Your task to perform on an android device: show emergency info Image 0: 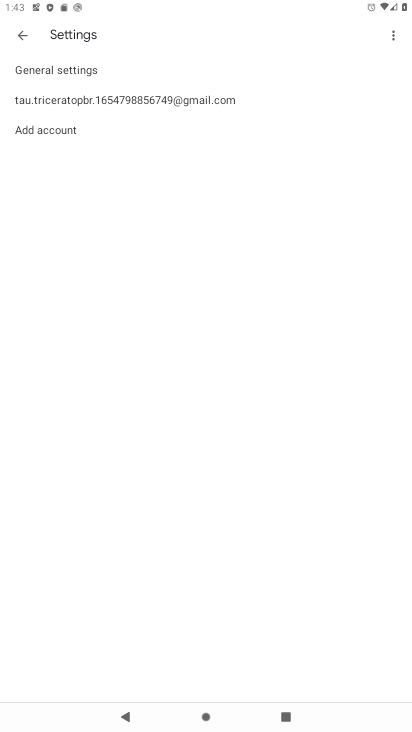
Step 0: press home button
Your task to perform on an android device: show emergency info Image 1: 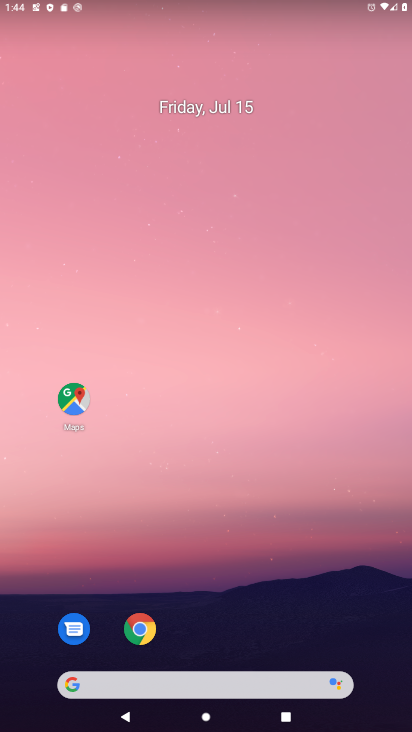
Step 1: drag from (280, 614) to (238, 97)
Your task to perform on an android device: show emergency info Image 2: 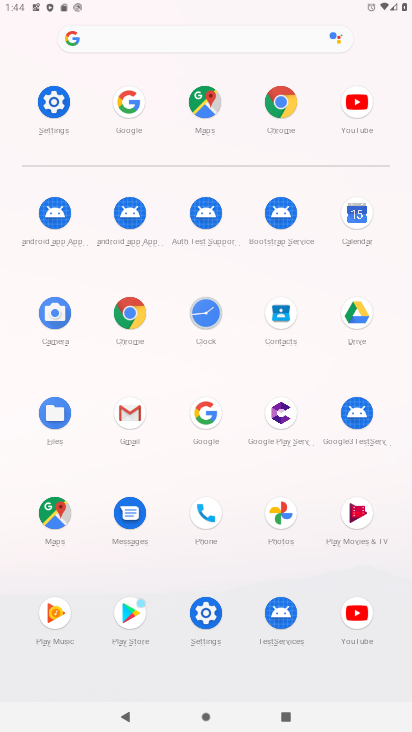
Step 2: click (51, 102)
Your task to perform on an android device: show emergency info Image 3: 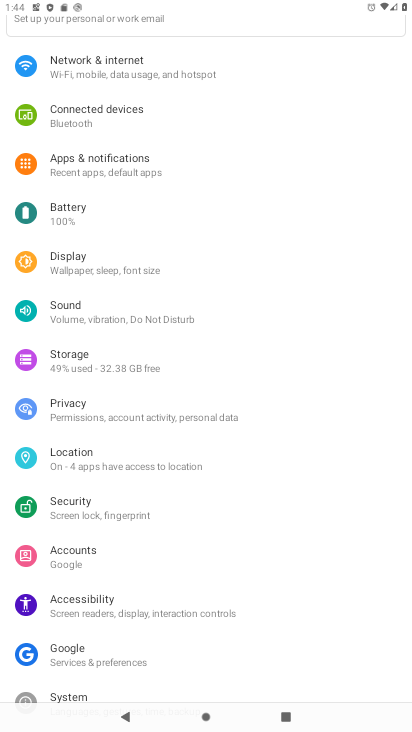
Step 3: drag from (263, 622) to (229, 147)
Your task to perform on an android device: show emergency info Image 4: 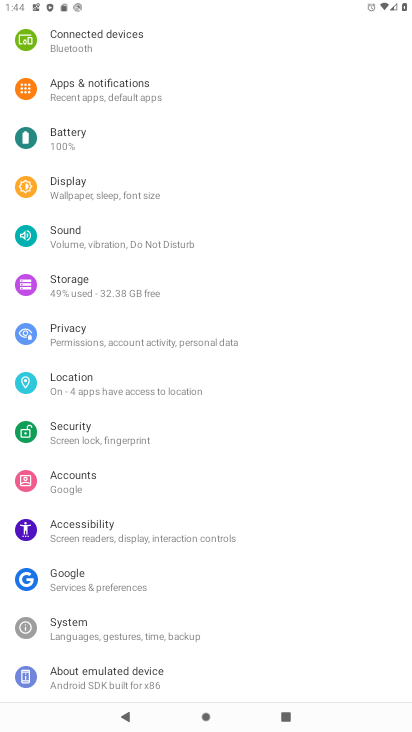
Step 4: click (144, 671)
Your task to perform on an android device: show emergency info Image 5: 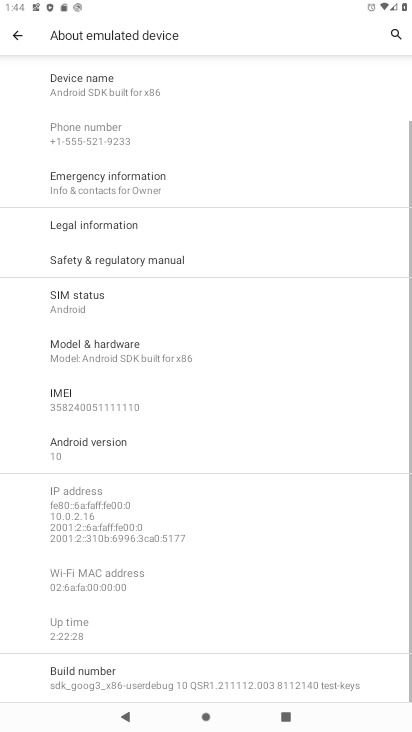
Step 5: click (107, 185)
Your task to perform on an android device: show emergency info Image 6: 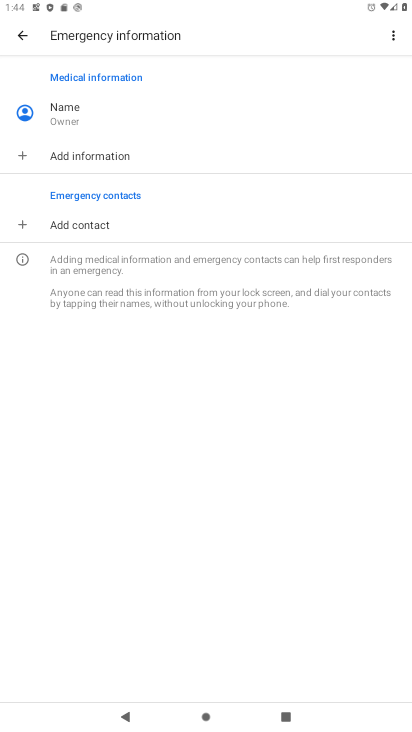
Step 6: task complete